Your task to perform on an android device: What's the weather going to be tomorrow? Image 0: 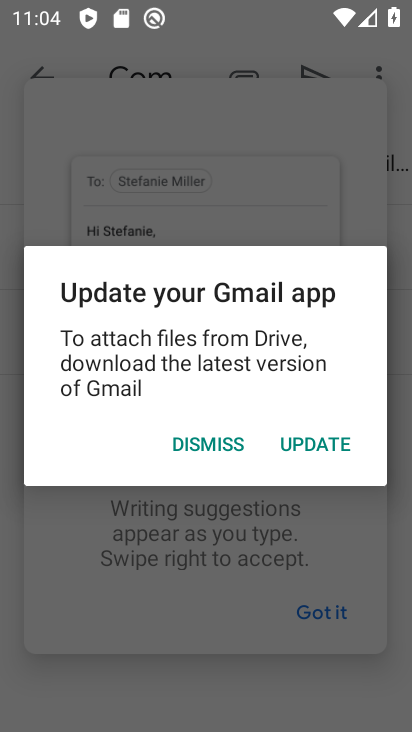
Step 0: press home button
Your task to perform on an android device: What's the weather going to be tomorrow? Image 1: 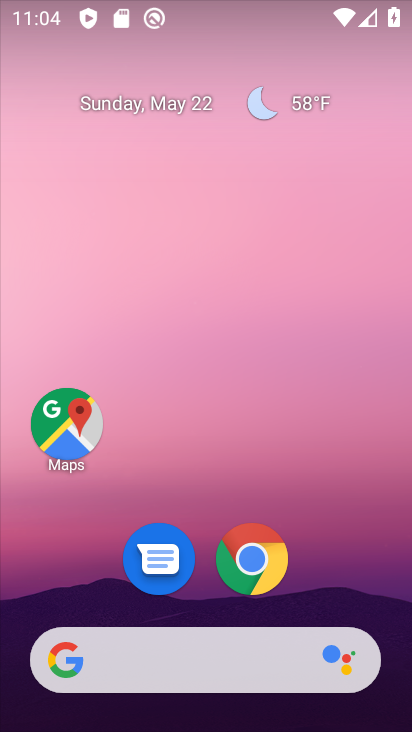
Step 1: click (284, 107)
Your task to perform on an android device: What's the weather going to be tomorrow? Image 2: 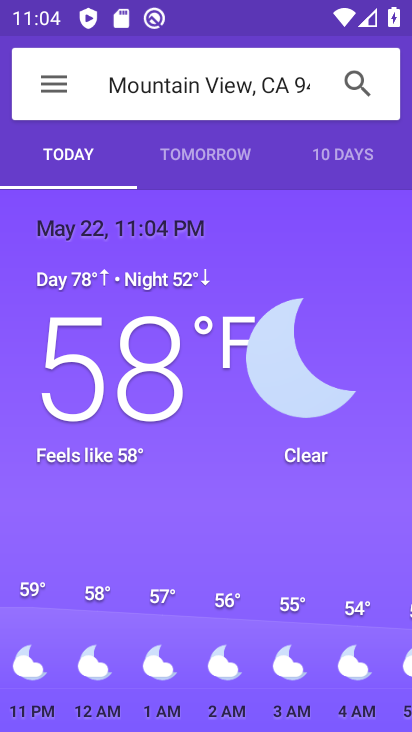
Step 2: click (207, 160)
Your task to perform on an android device: What's the weather going to be tomorrow? Image 3: 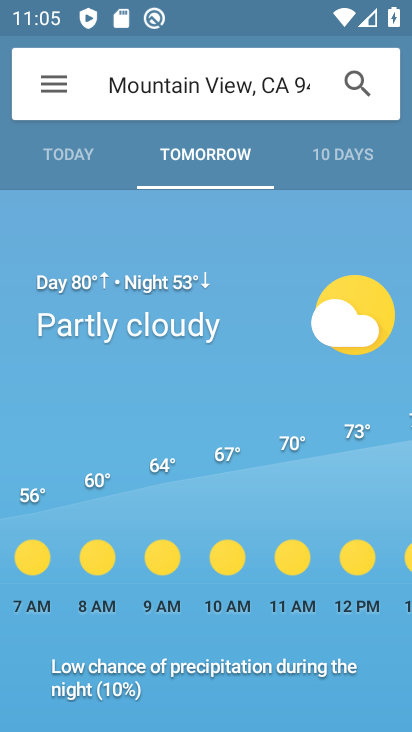
Step 3: task complete